Your task to perform on an android device: When is my next appointment? Image 0: 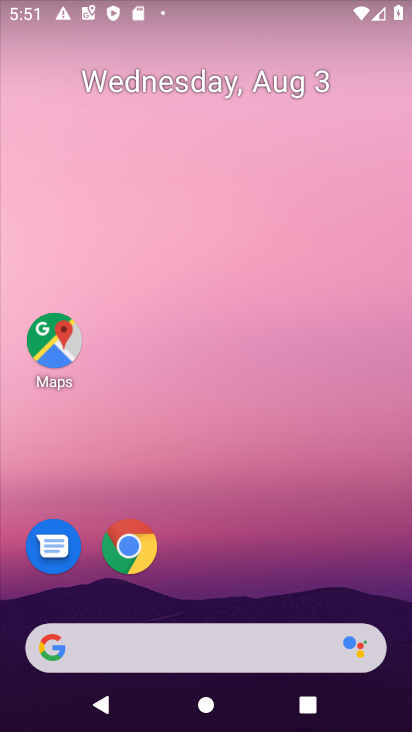
Step 0: press home button
Your task to perform on an android device: When is my next appointment? Image 1: 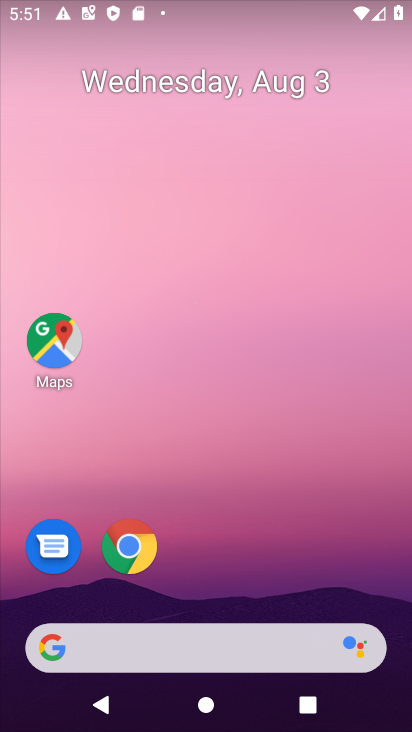
Step 1: drag from (210, 596) to (271, 94)
Your task to perform on an android device: When is my next appointment? Image 2: 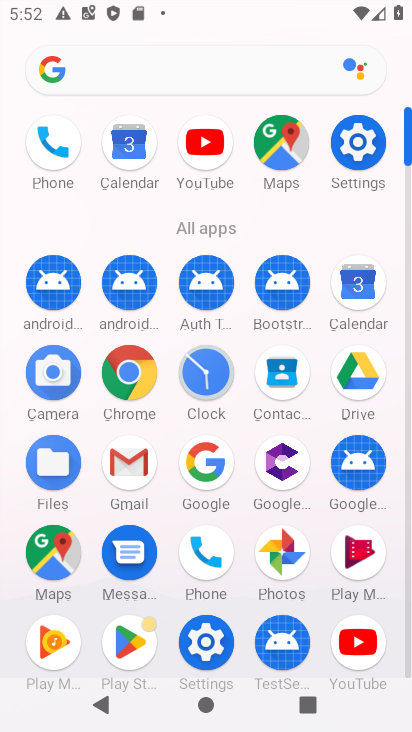
Step 2: click (371, 300)
Your task to perform on an android device: When is my next appointment? Image 3: 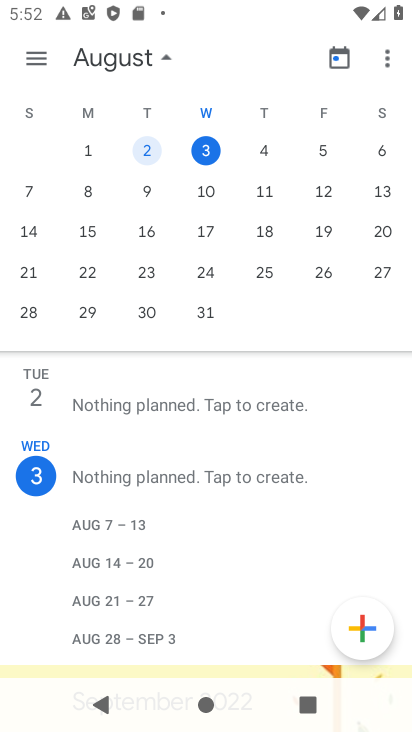
Step 3: click (30, 57)
Your task to perform on an android device: When is my next appointment? Image 4: 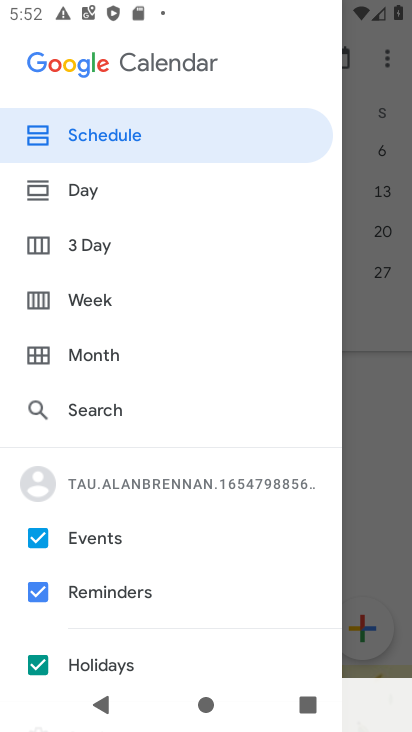
Step 4: click (122, 139)
Your task to perform on an android device: When is my next appointment? Image 5: 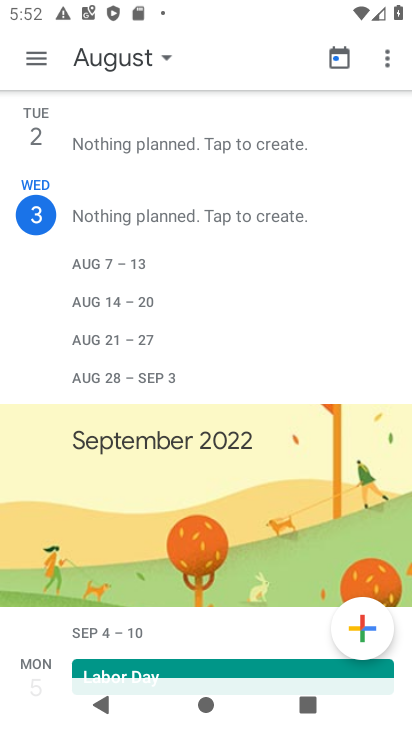
Step 5: task complete